Your task to perform on an android device: toggle notification dots Image 0: 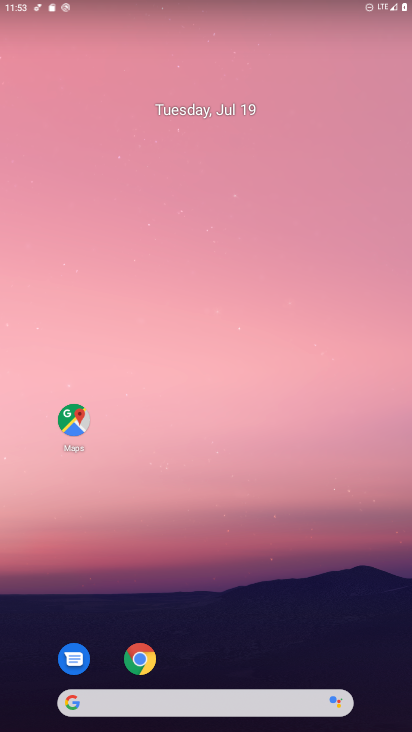
Step 0: drag from (307, 598) to (283, 45)
Your task to perform on an android device: toggle notification dots Image 1: 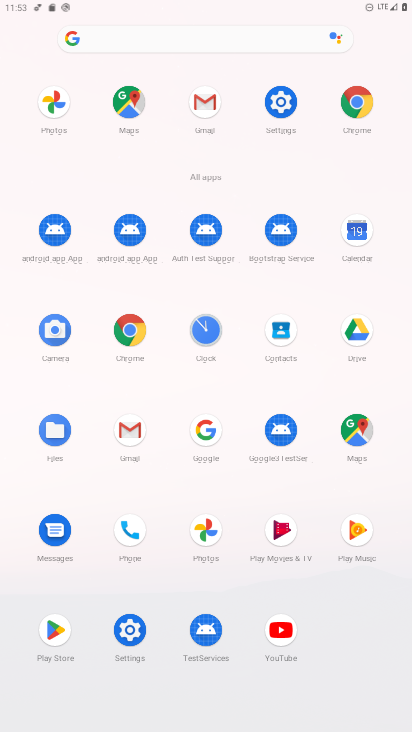
Step 1: click (282, 107)
Your task to perform on an android device: toggle notification dots Image 2: 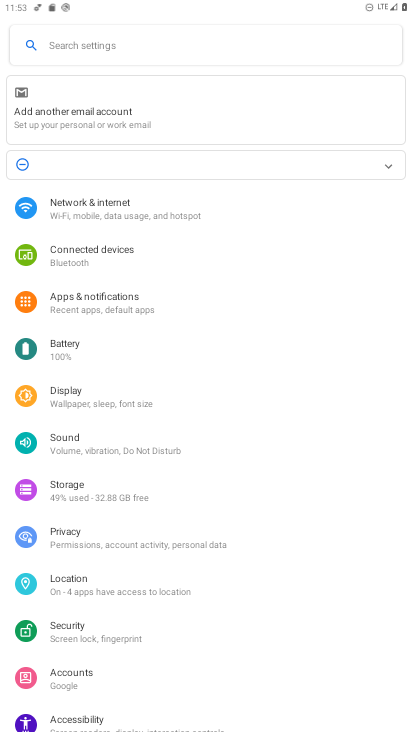
Step 2: click (104, 302)
Your task to perform on an android device: toggle notification dots Image 3: 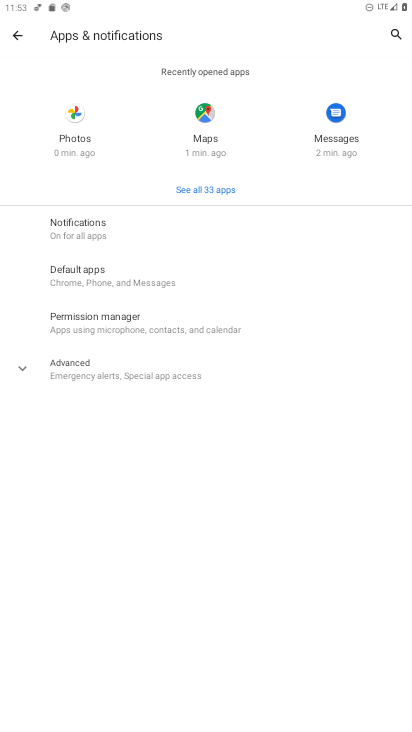
Step 3: click (87, 216)
Your task to perform on an android device: toggle notification dots Image 4: 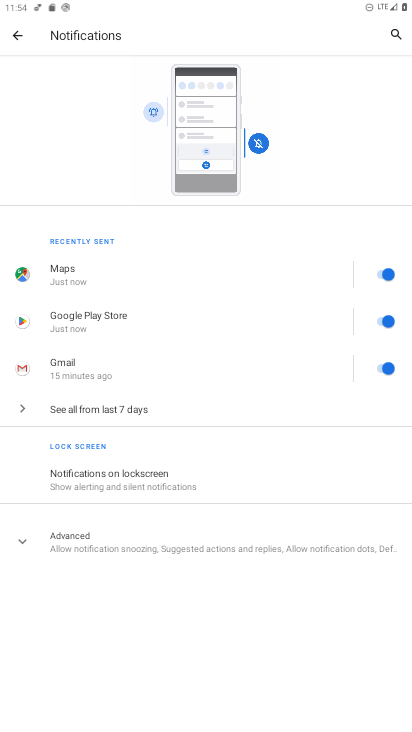
Step 4: click (178, 552)
Your task to perform on an android device: toggle notification dots Image 5: 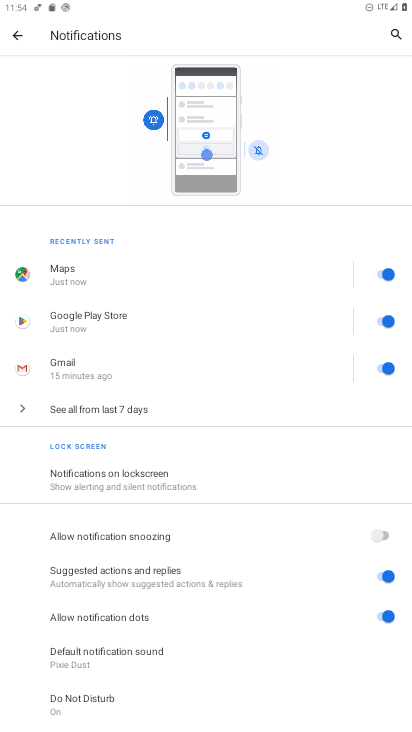
Step 5: click (374, 611)
Your task to perform on an android device: toggle notification dots Image 6: 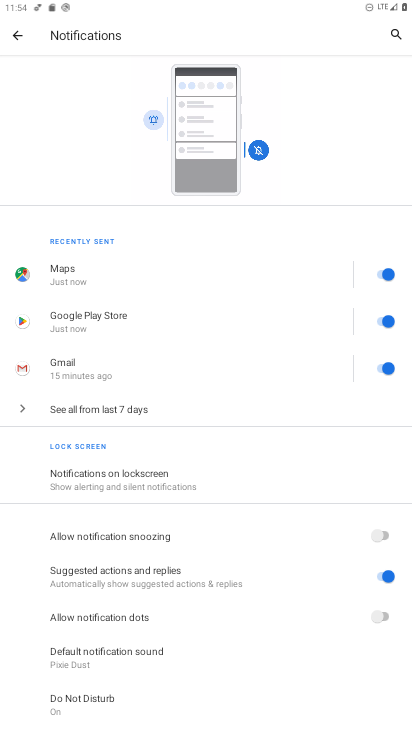
Step 6: task complete